Your task to perform on an android device: Set the phone to "Do not disturb". Image 0: 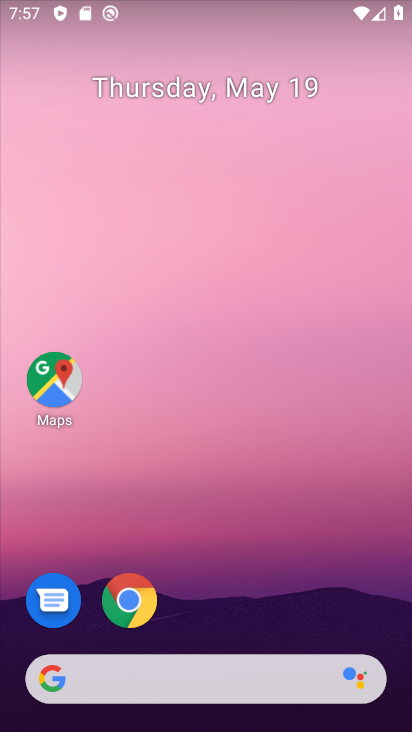
Step 0: drag from (389, 628) to (368, 239)
Your task to perform on an android device: Set the phone to "Do not disturb". Image 1: 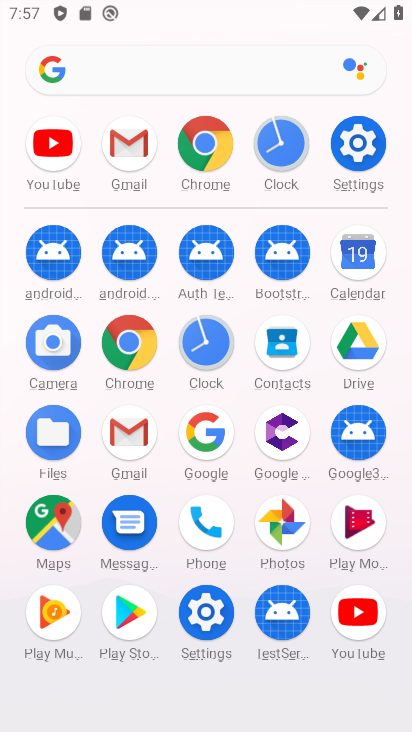
Step 1: click (221, 612)
Your task to perform on an android device: Set the phone to "Do not disturb". Image 2: 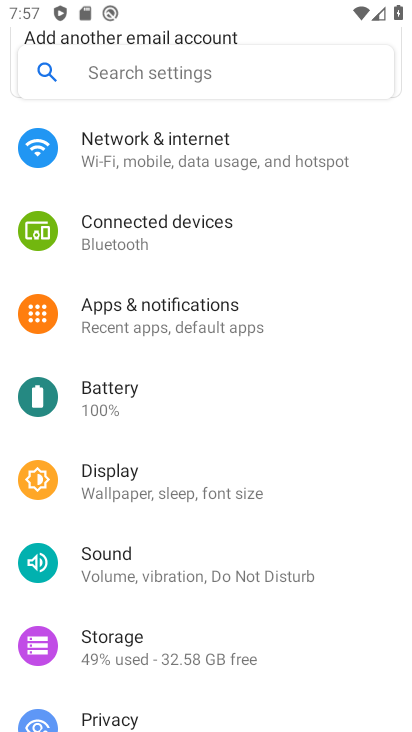
Step 2: drag from (332, 651) to (361, 553)
Your task to perform on an android device: Set the phone to "Do not disturb". Image 3: 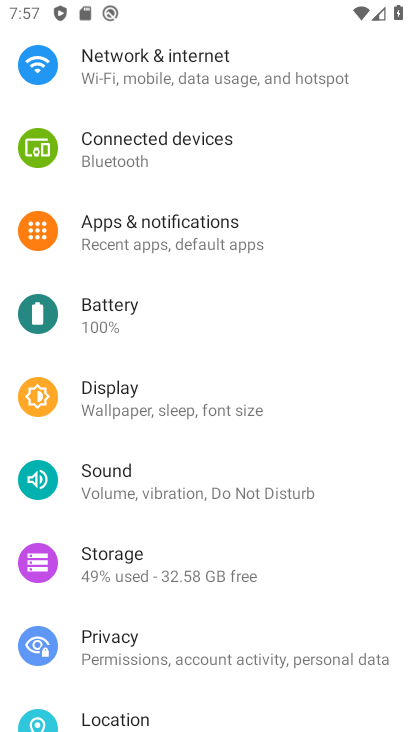
Step 3: drag from (359, 695) to (380, 536)
Your task to perform on an android device: Set the phone to "Do not disturb". Image 4: 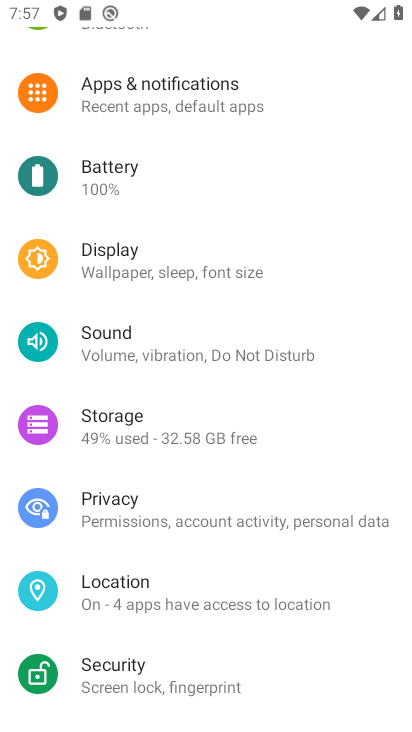
Step 4: drag from (367, 698) to (381, 508)
Your task to perform on an android device: Set the phone to "Do not disturb". Image 5: 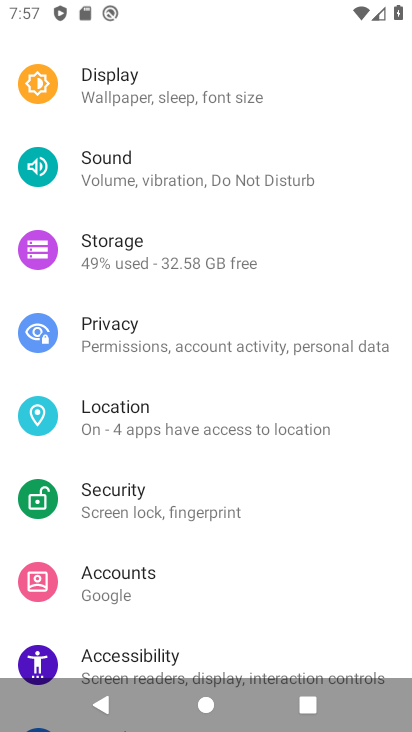
Step 5: drag from (359, 600) to (375, 454)
Your task to perform on an android device: Set the phone to "Do not disturb". Image 6: 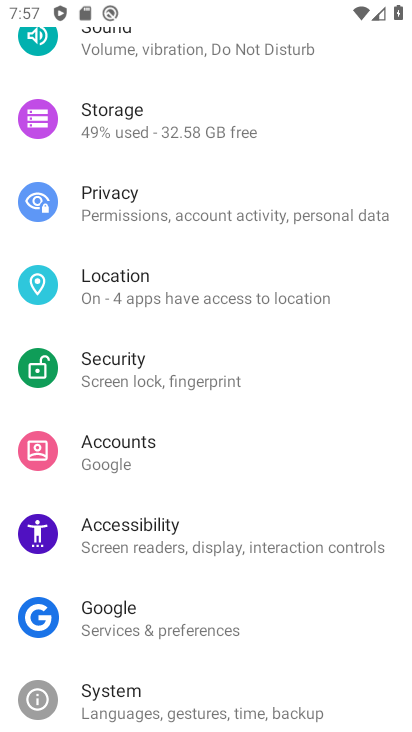
Step 6: drag from (338, 629) to (332, 441)
Your task to perform on an android device: Set the phone to "Do not disturb". Image 7: 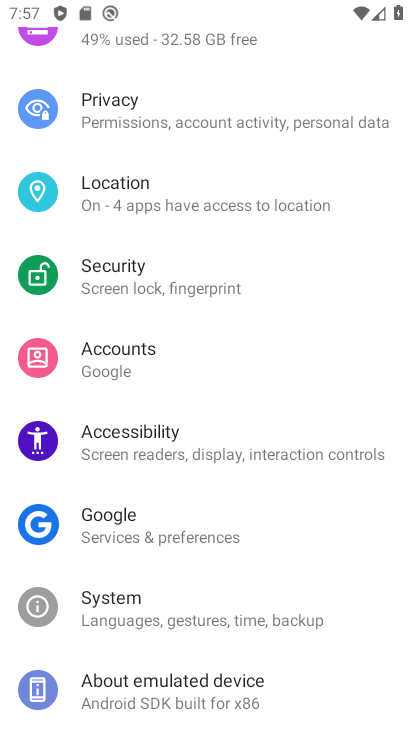
Step 7: drag from (331, 662) to (323, 505)
Your task to perform on an android device: Set the phone to "Do not disturb". Image 8: 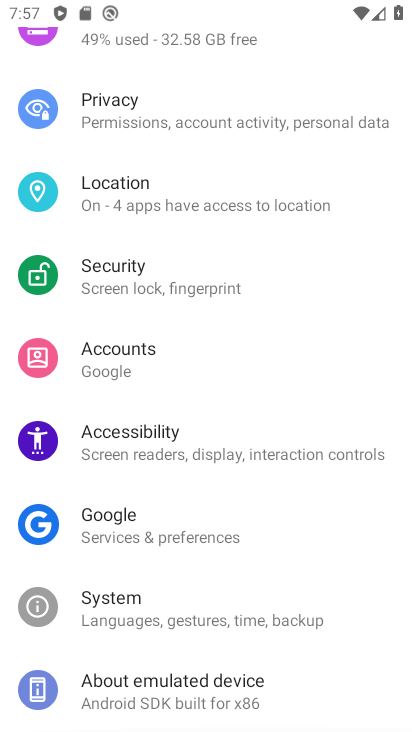
Step 8: drag from (344, 330) to (328, 471)
Your task to perform on an android device: Set the phone to "Do not disturb". Image 9: 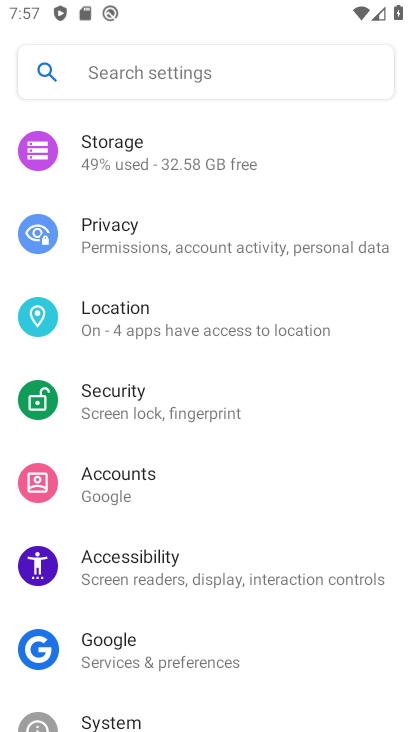
Step 9: drag from (353, 342) to (350, 478)
Your task to perform on an android device: Set the phone to "Do not disturb". Image 10: 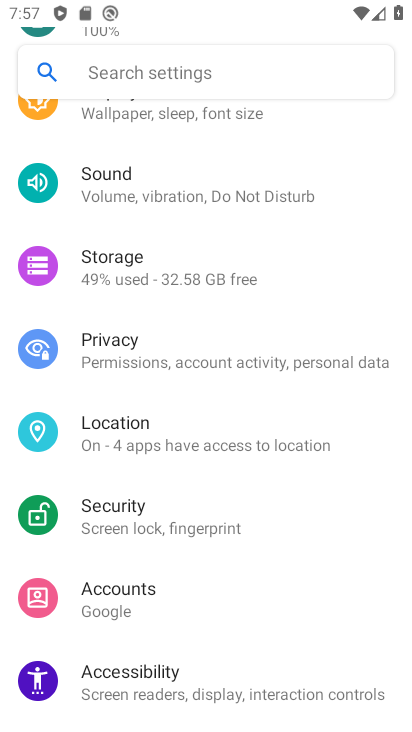
Step 10: drag from (368, 314) to (357, 410)
Your task to perform on an android device: Set the phone to "Do not disturb". Image 11: 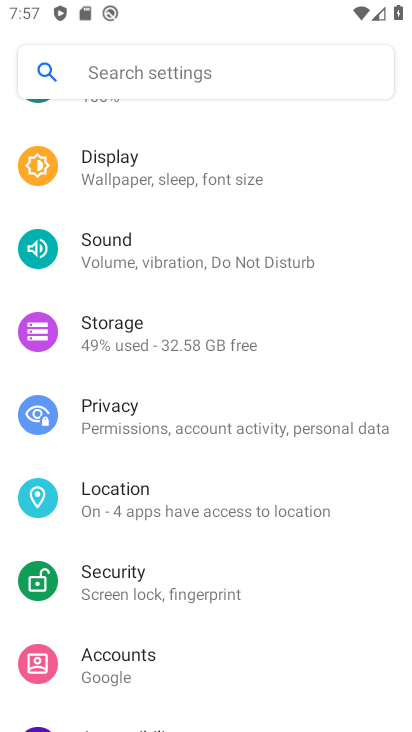
Step 11: drag from (363, 321) to (346, 432)
Your task to perform on an android device: Set the phone to "Do not disturb". Image 12: 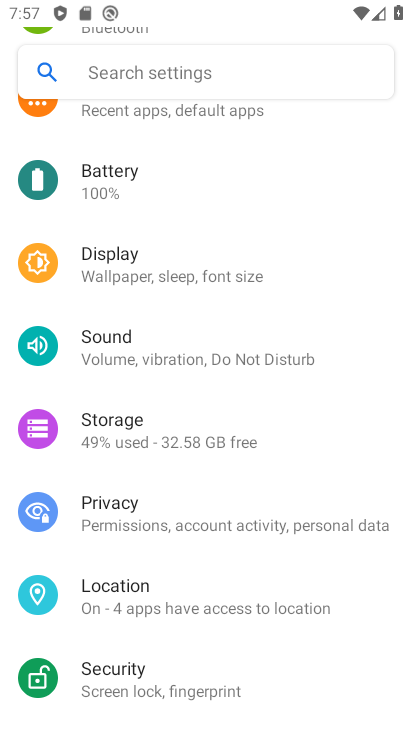
Step 12: drag from (364, 299) to (340, 413)
Your task to perform on an android device: Set the phone to "Do not disturb". Image 13: 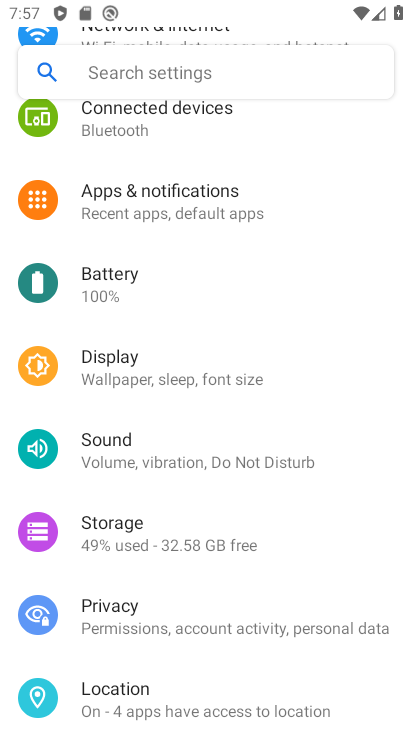
Step 13: click (276, 460)
Your task to perform on an android device: Set the phone to "Do not disturb". Image 14: 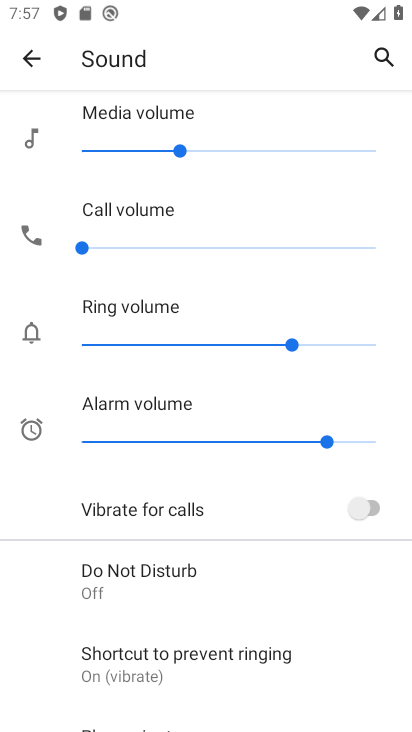
Step 14: drag from (308, 581) to (310, 456)
Your task to perform on an android device: Set the phone to "Do not disturb". Image 15: 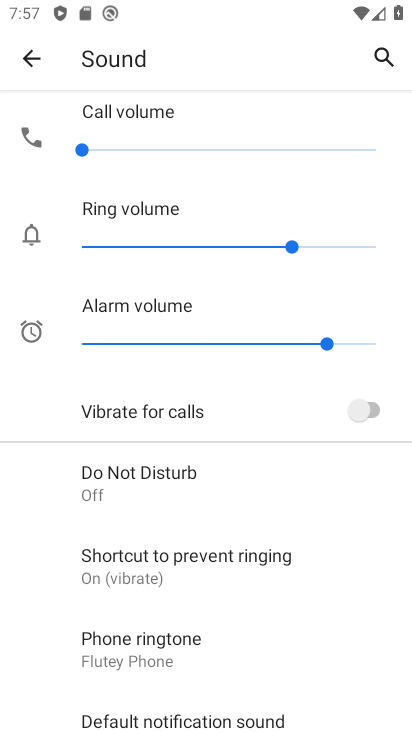
Step 15: click (246, 504)
Your task to perform on an android device: Set the phone to "Do not disturb". Image 16: 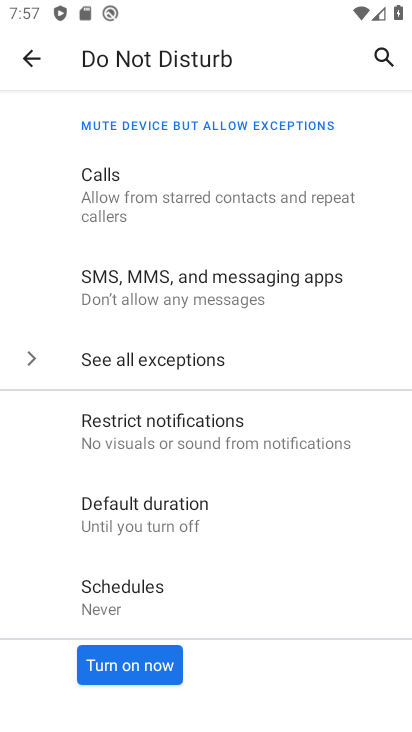
Step 16: click (151, 672)
Your task to perform on an android device: Set the phone to "Do not disturb". Image 17: 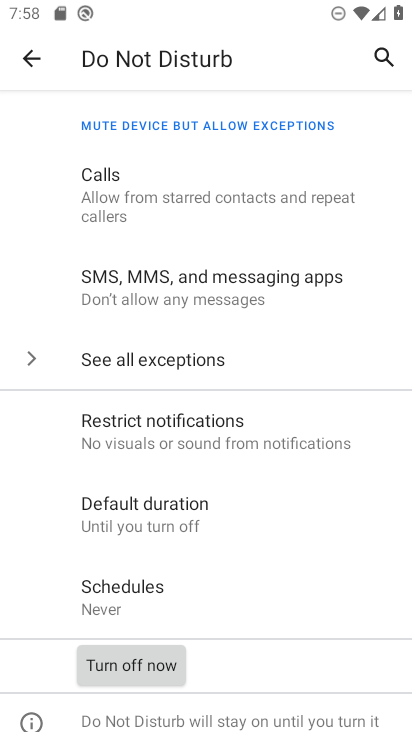
Step 17: task complete